Your task to perform on an android device: toggle improve location accuracy Image 0: 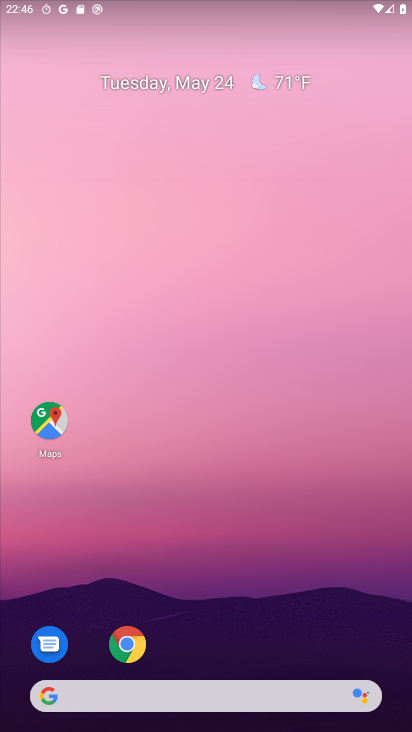
Step 0: drag from (264, 535) to (231, 35)
Your task to perform on an android device: toggle improve location accuracy Image 1: 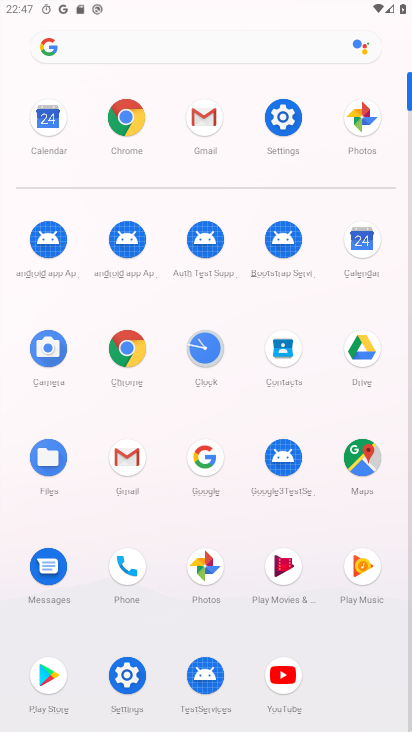
Step 1: click (125, 668)
Your task to perform on an android device: toggle improve location accuracy Image 2: 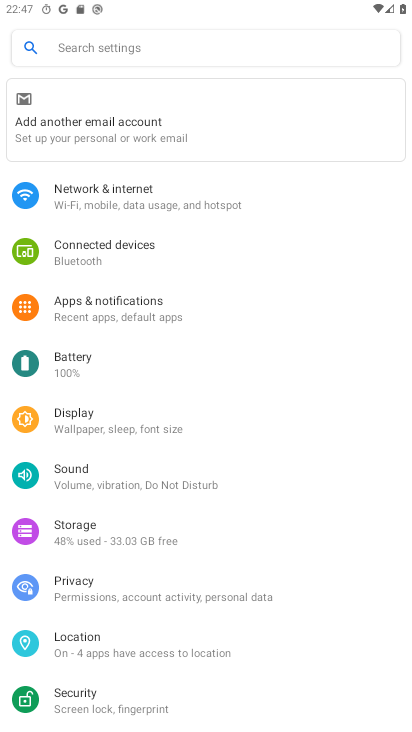
Step 2: click (75, 631)
Your task to perform on an android device: toggle improve location accuracy Image 3: 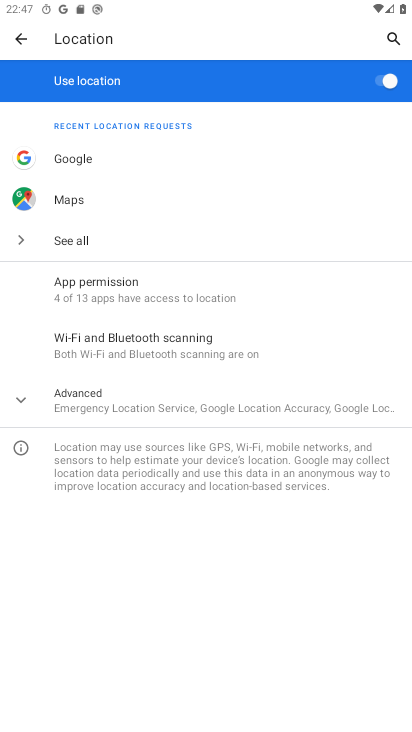
Step 3: click (47, 385)
Your task to perform on an android device: toggle improve location accuracy Image 4: 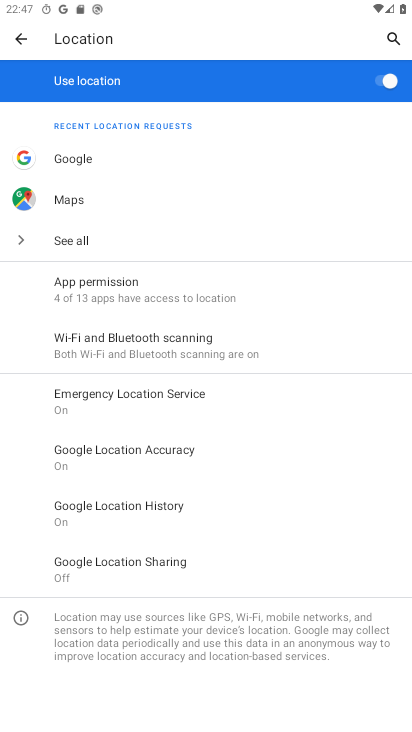
Step 4: click (170, 450)
Your task to perform on an android device: toggle improve location accuracy Image 5: 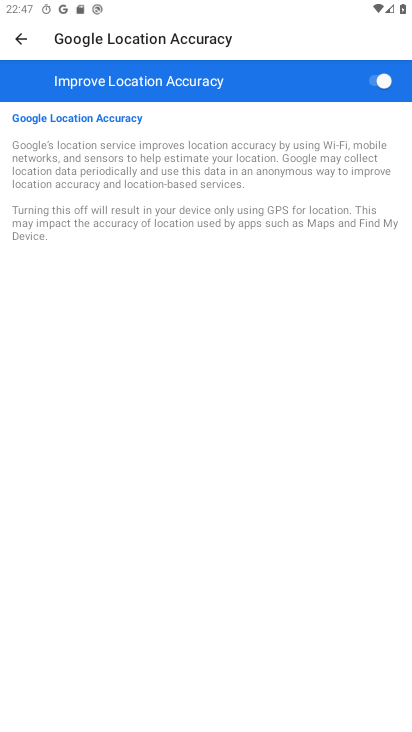
Step 5: click (379, 82)
Your task to perform on an android device: toggle improve location accuracy Image 6: 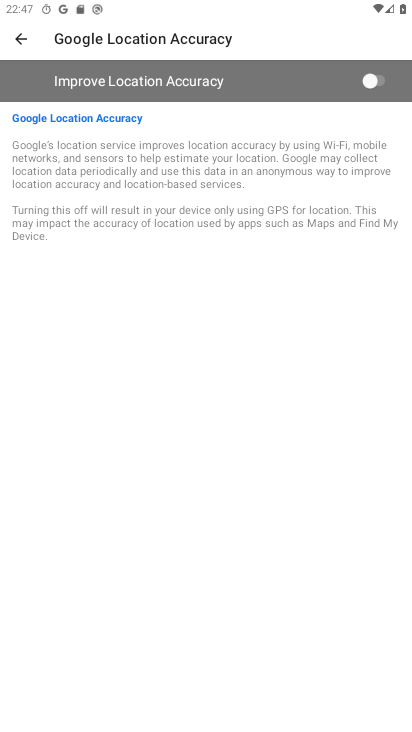
Step 6: task complete